Your task to perform on an android device: open a new tab in the chrome app Image 0: 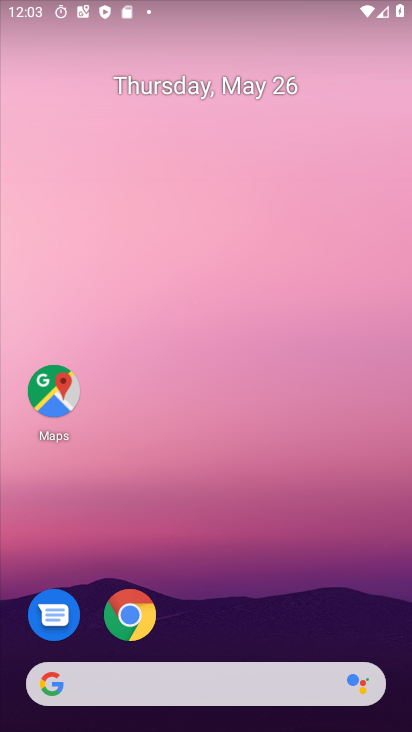
Step 0: click (128, 608)
Your task to perform on an android device: open a new tab in the chrome app Image 1: 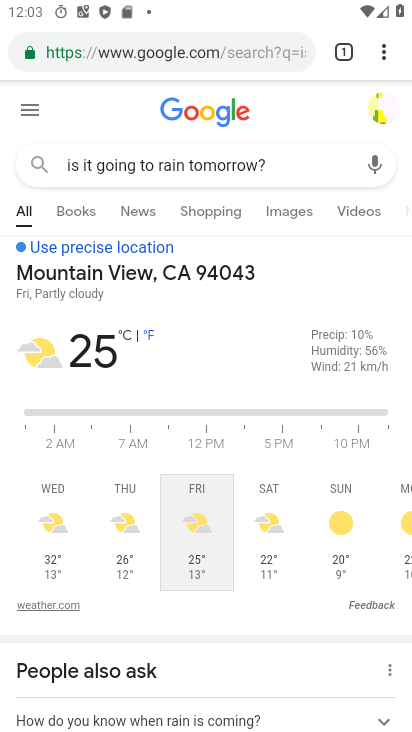
Step 1: click (384, 54)
Your task to perform on an android device: open a new tab in the chrome app Image 2: 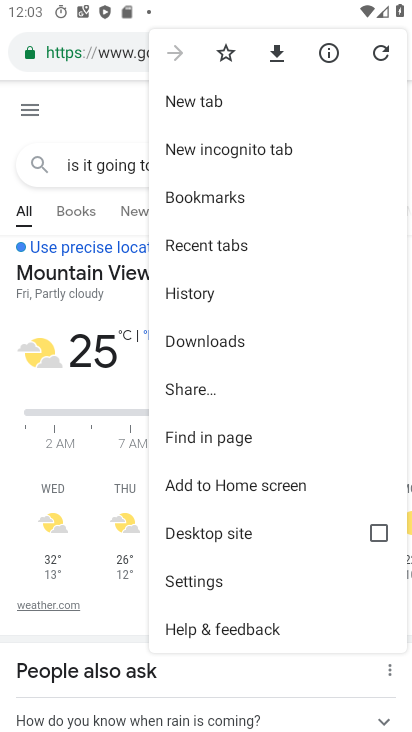
Step 2: click (278, 101)
Your task to perform on an android device: open a new tab in the chrome app Image 3: 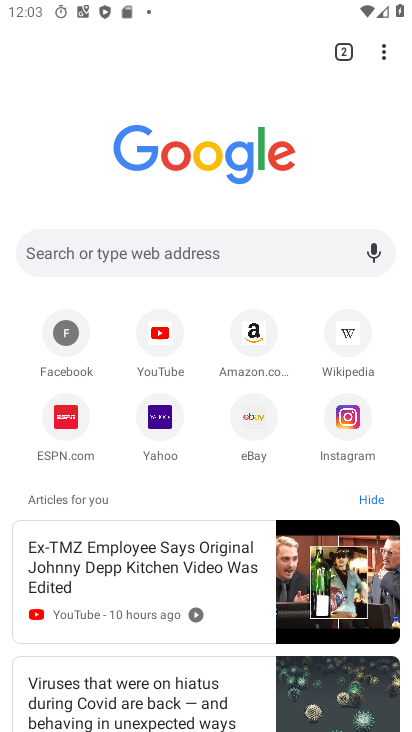
Step 3: task complete